Your task to perform on an android device: open device folders in google photos Image 0: 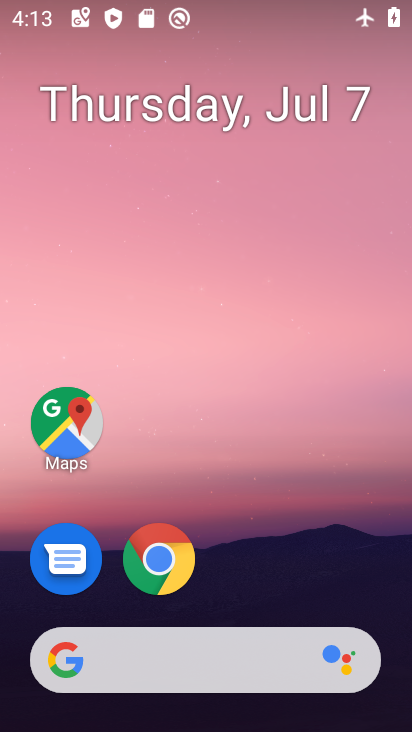
Step 0: drag from (228, 600) to (283, 0)
Your task to perform on an android device: open device folders in google photos Image 1: 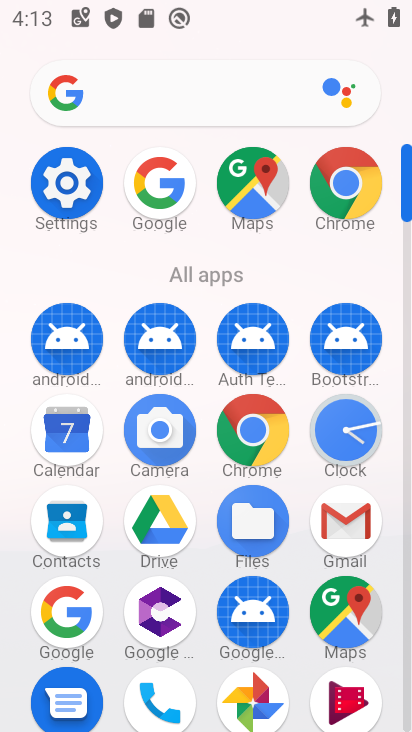
Step 1: click (249, 675)
Your task to perform on an android device: open device folders in google photos Image 2: 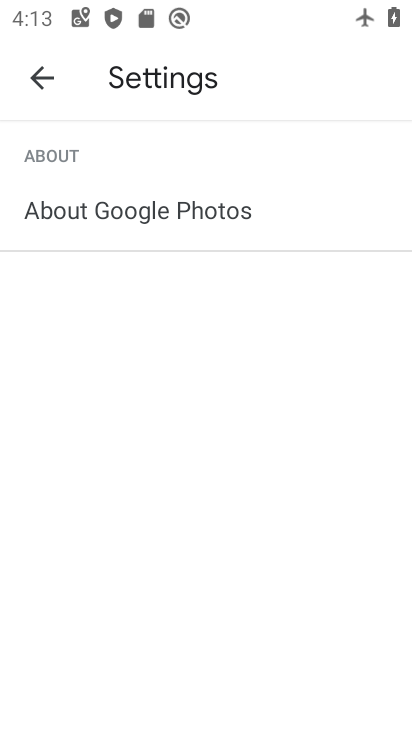
Step 2: click (36, 65)
Your task to perform on an android device: open device folders in google photos Image 3: 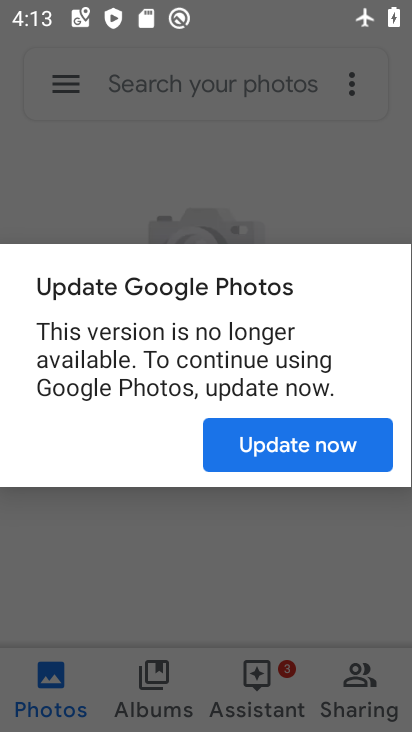
Step 3: click (248, 467)
Your task to perform on an android device: open device folders in google photos Image 4: 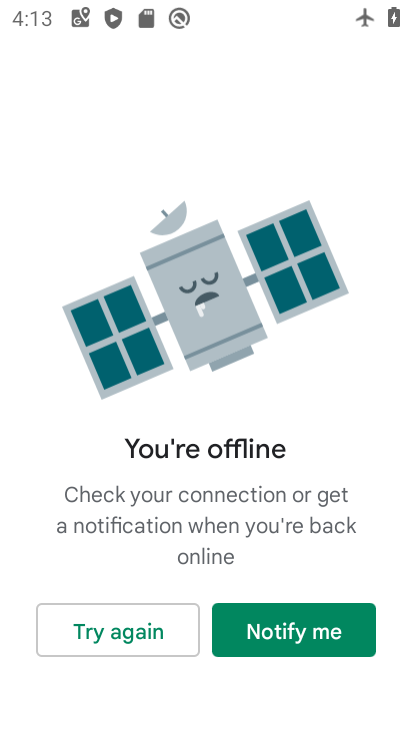
Step 4: click (129, 640)
Your task to perform on an android device: open device folders in google photos Image 5: 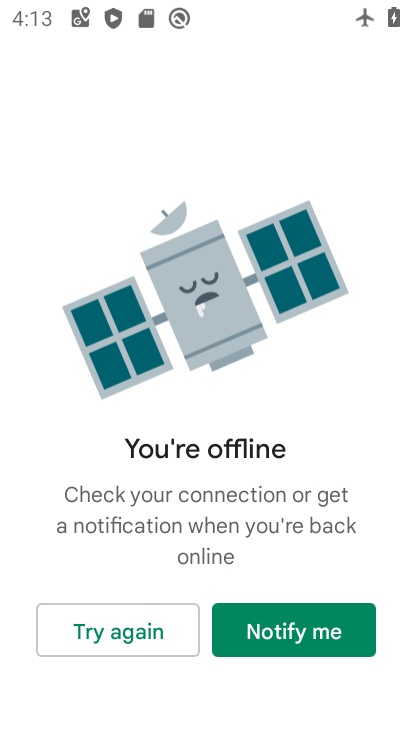
Step 5: press back button
Your task to perform on an android device: open device folders in google photos Image 6: 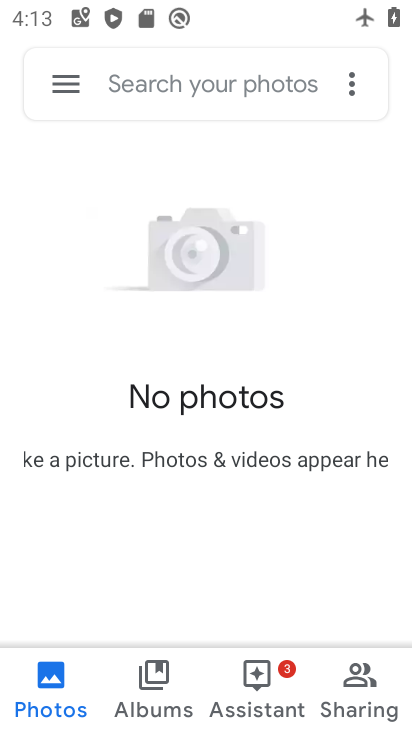
Step 6: click (60, 84)
Your task to perform on an android device: open device folders in google photos Image 7: 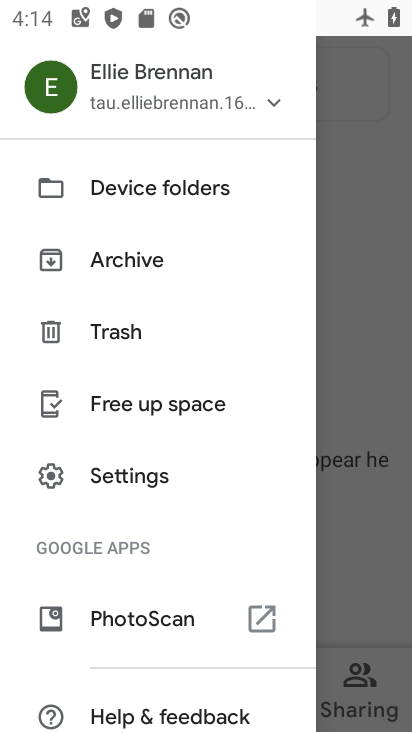
Step 7: click (146, 187)
Your task to perform on an android device: open device folders in google photos Image 8: 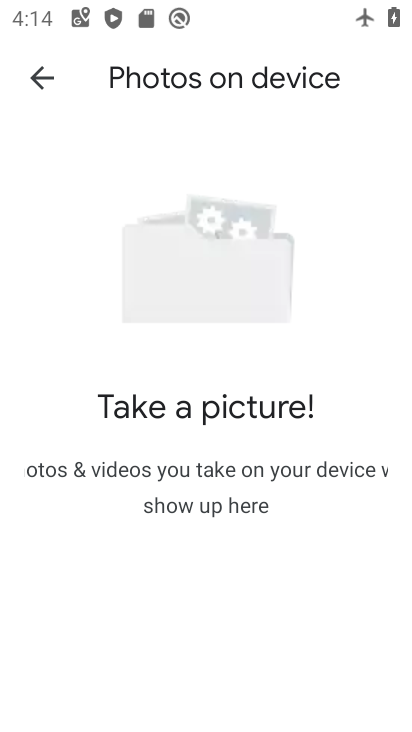
Step 8: task complete